Your task to perform on an android device: What's the weather? Image 0: 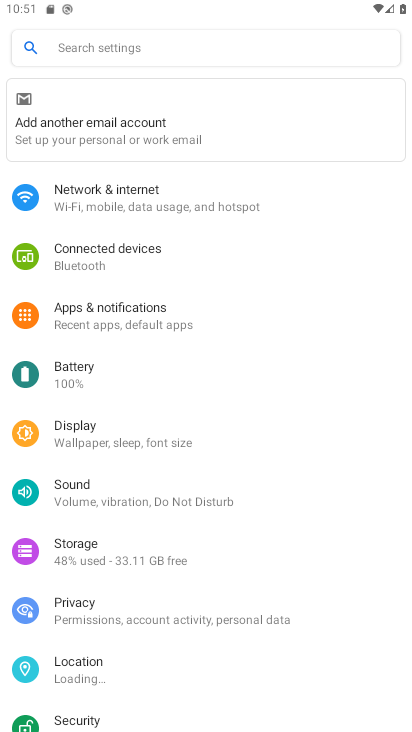
Step 0: press home button
Your task to perform on an android device: What's the weather? Image 1: 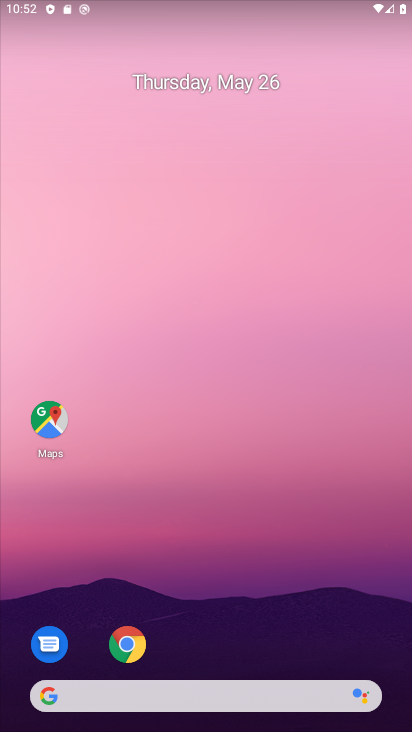
Step 1: click (160, 695)
Your task to perform on an android device: What's the weather? Image 2: 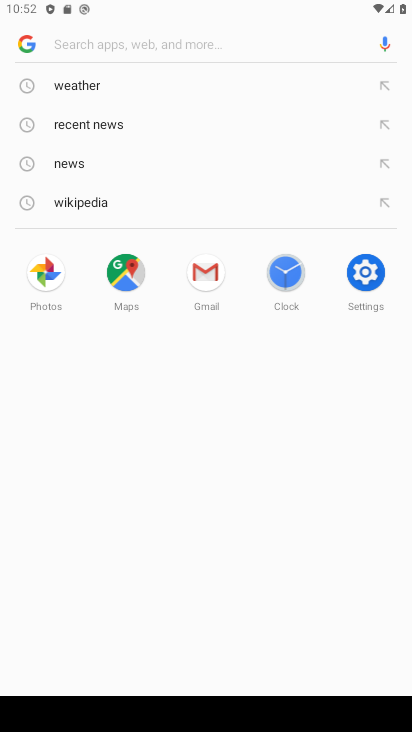
Step 2: click (79, 96)
Your task to perform on an android device: What's the weather? Image 3: 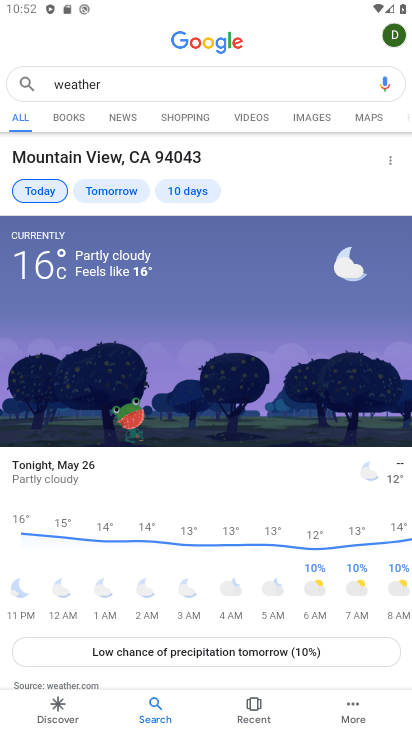
Step 3: task complete